Your task to perform on an android device: turn on the 12-hour format for clock Image 0: 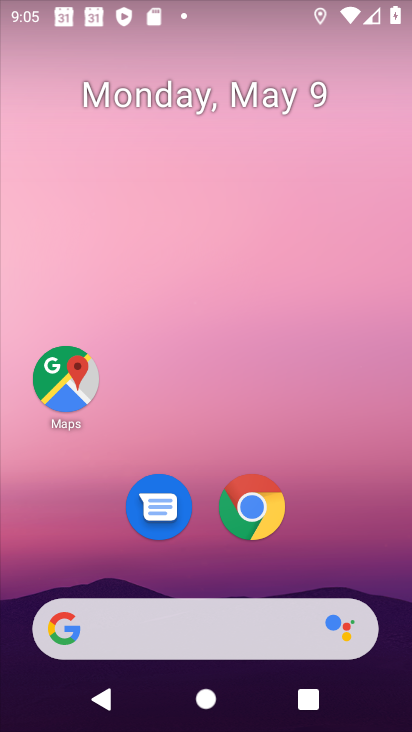
Step 0: drag from (84, 590) to (171, 147)
Your task to perform on an android device: turn on the 12-hour format for clock Image 1: 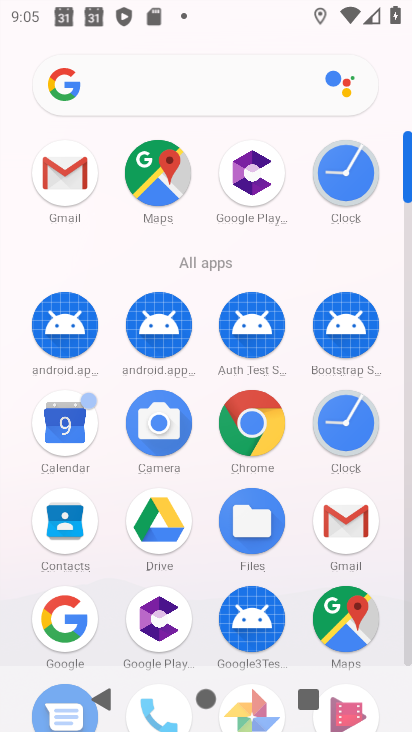
Step 1: click (343, 442)
Your task to perform on an android device: turn on the 12-hour format for clock Image 2: 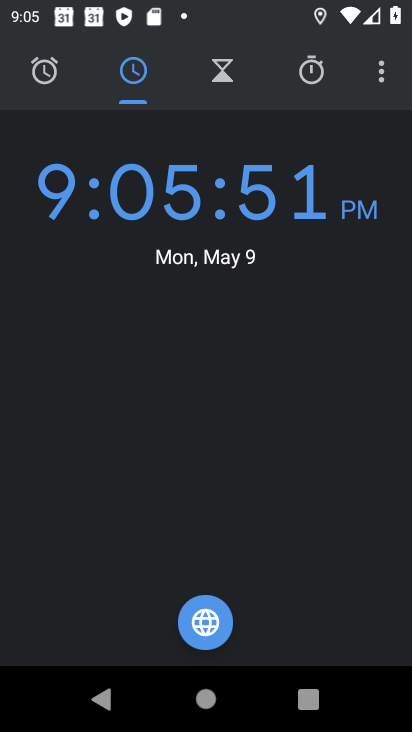
Step 2: click (385, 66)
Your task to perform on an android device: turn on the 12-hour format for clock Image 3: 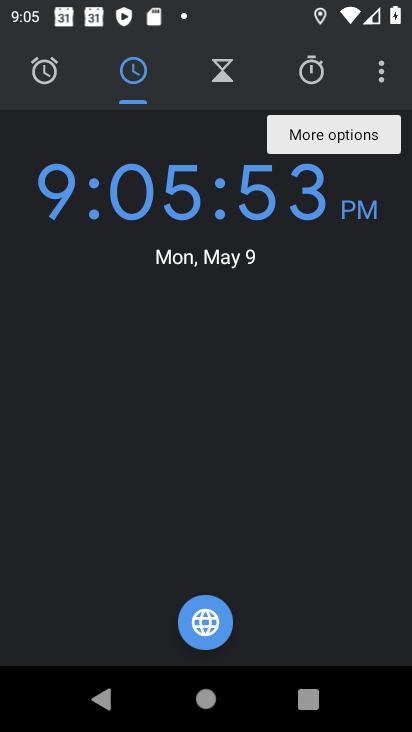
Step 3: click (392, 93)
Your task to perform on an android device: turn on the 12-hour format for clock Image 4: 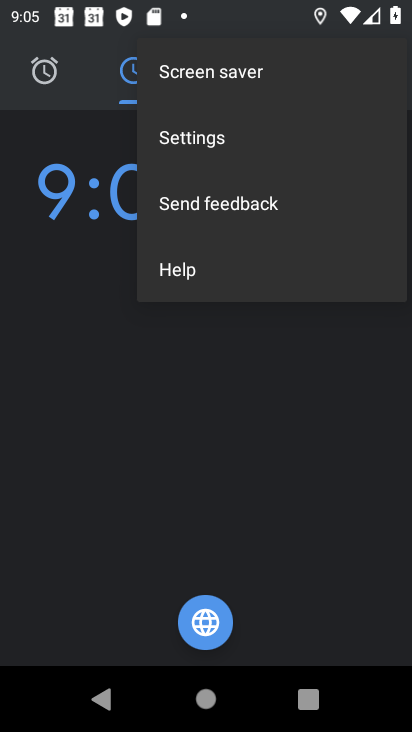
Step 4: click (330, 144)
Your task to perform on an android device: turn on the 12-hour format for clock Image 5: 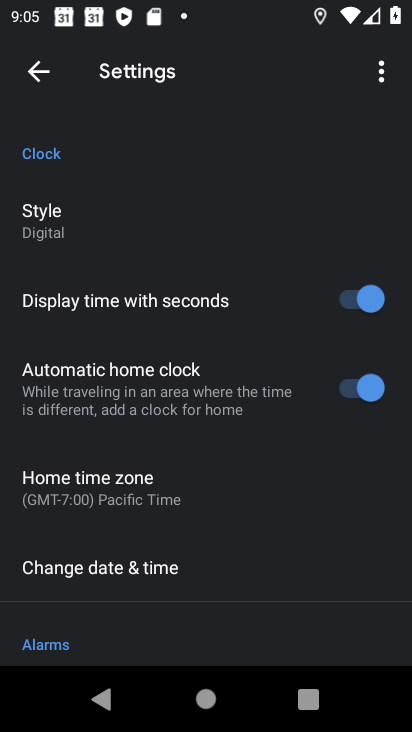
Step 5: click (149, 565)
Your task to perform on an android device: turn on the 12-hour format for clock Image 6: 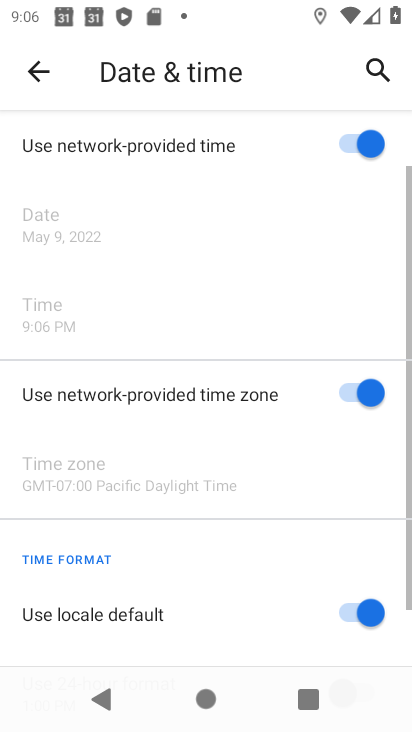
Step 6: task complete